Your task to perform on an android device: find photos in the google photos app Image 0: 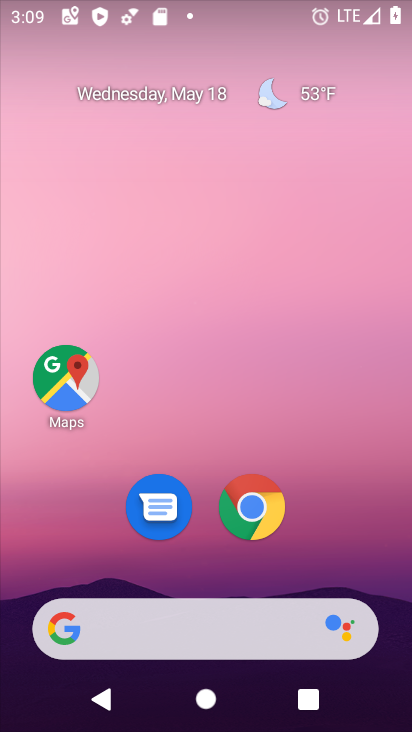
Step 0: drag from (339, 559) to (243, 140)
Your task to perform on an android device: find photos in the google photos app Image 1: 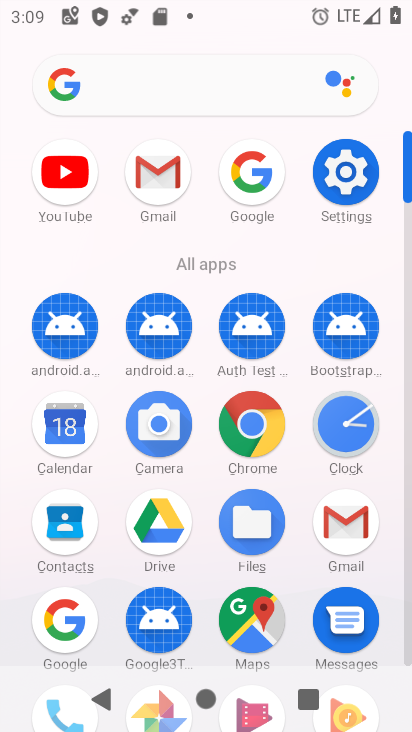
Step 1: drag from (208, 499) to (211, 253)
Your task to perform on an android device: find photos in the google photos app Image 2: 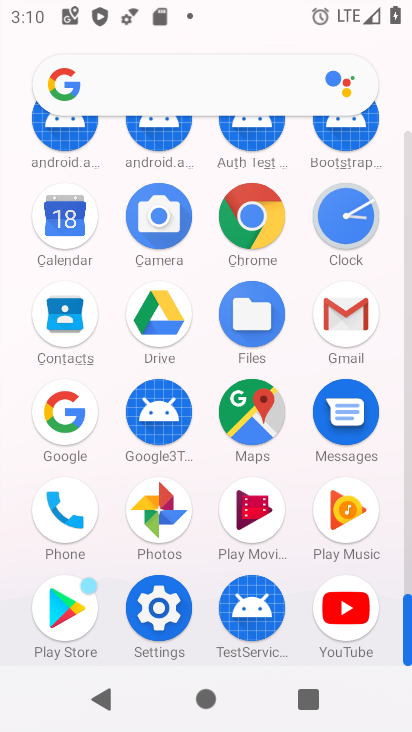
Step 2: click (157, 509)
Your task to perform on an android device: find photos in the google photos app Image 3: 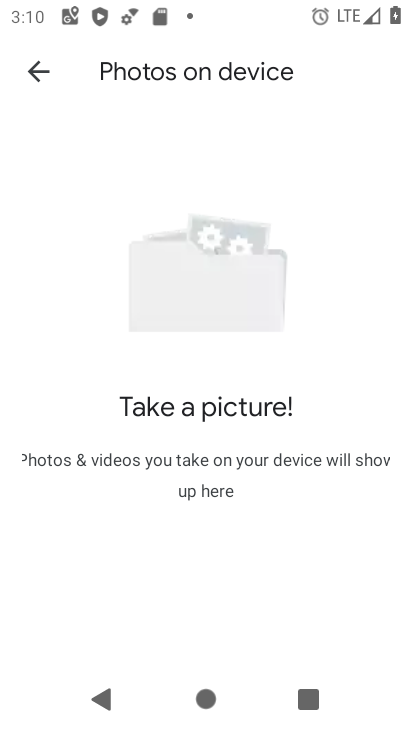
Step 3: click (24, 70)
Your task to perform on an android device: find photos in the google photos app Image 4: 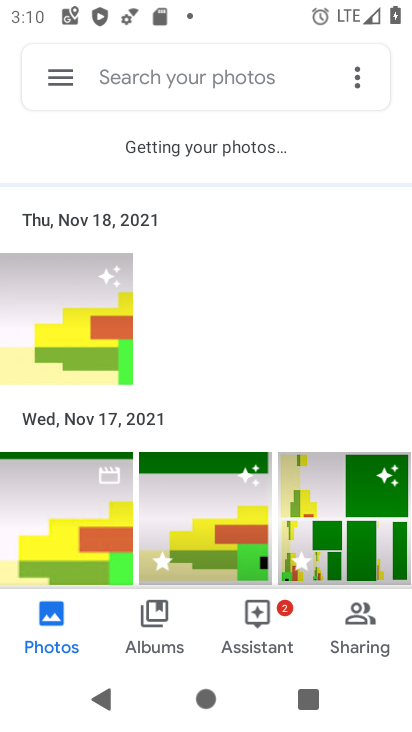
Step 4: click (219, 73)
Your task to perform on an android device: find photos in the google photos app Image 5: 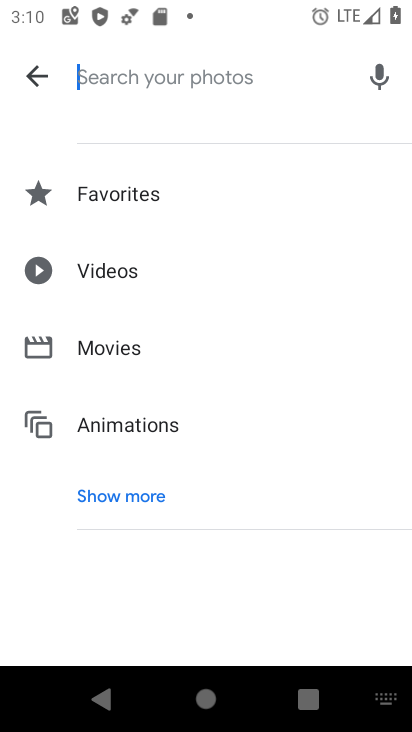
Step 5: click (136, 193)
Your task to perform on an android device: find photos in the google photos app Image 6: 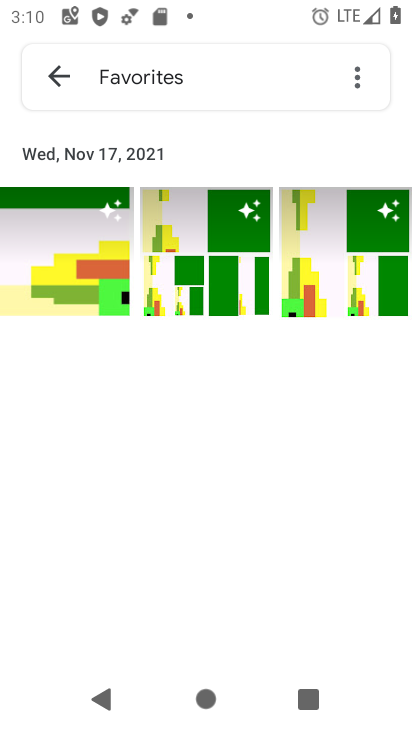
Step 6: click (191, 247)
Your task to perform on an android device: find photos in the google photos app Image 7: 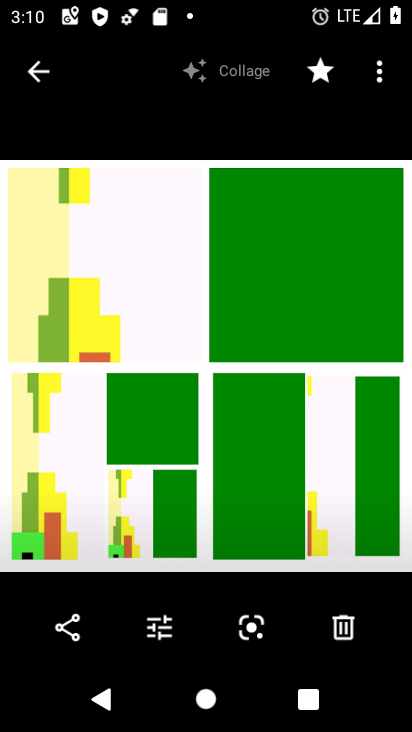
Step 7: task complete